Your task to perform on an android device: What's the weather? Image 0: 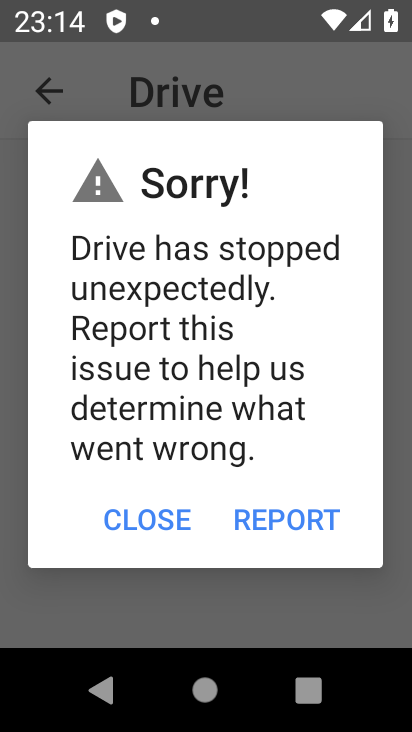
Step 0: press home button
Your task to perform on an android device: What's the weather? Image 1: 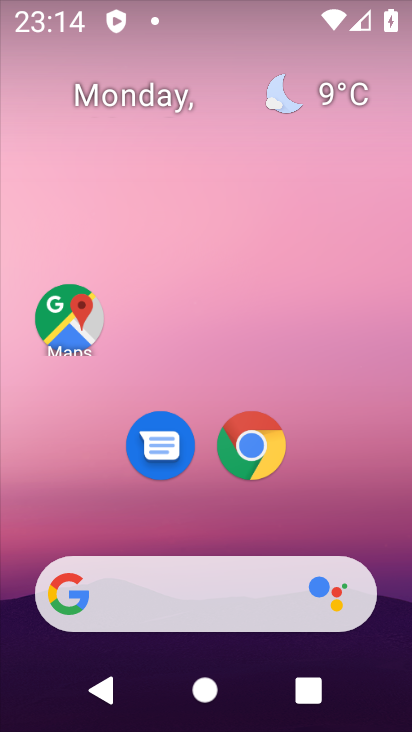
Step 1: drag from (224, 570) to (272, 67)
Your task to perform on an android device: What's the weather? Image 2: 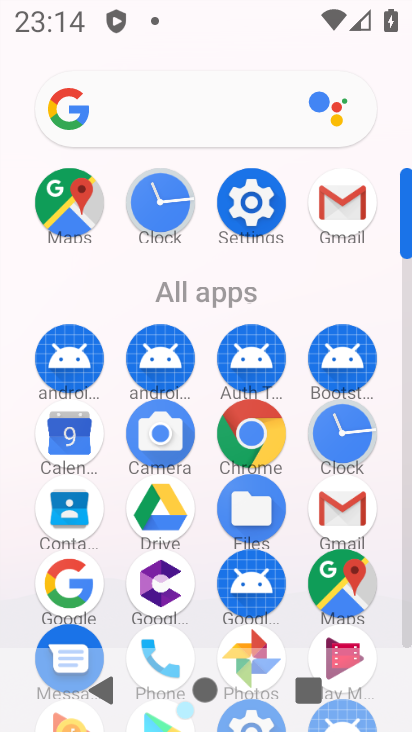
Step 2: click (254, 431)
Your task to perform on an android device: What's the weather? Image 3: 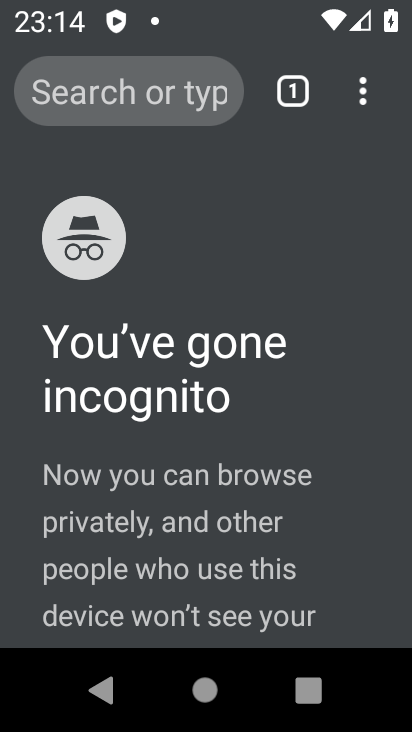
Step 3: click (185, 103)
Your task to perform on an android device: What's the weather? Image 4: 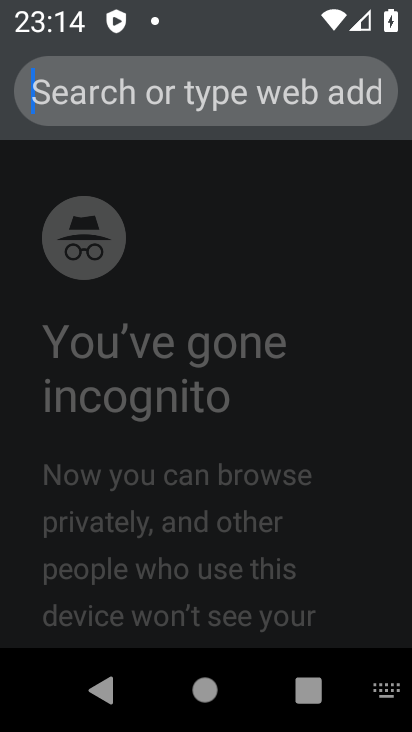
Step 4: type "weather"
Your task to perform on an android device: What's the weather? Image 5: 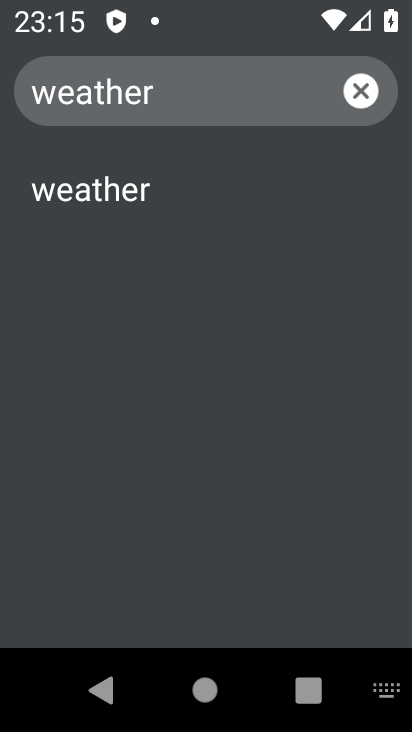
Step 5: click (129, 209)
Your task to perform on an android device: What's the weather? Image 6: 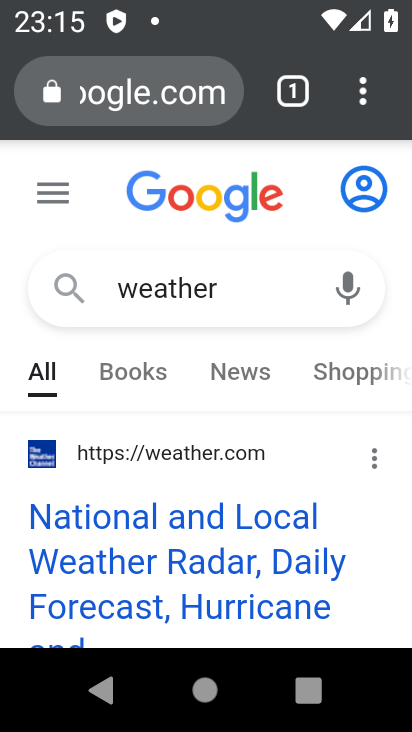
Step 6: task complete